Your task to perform on an android device: set an alarm Image 0: 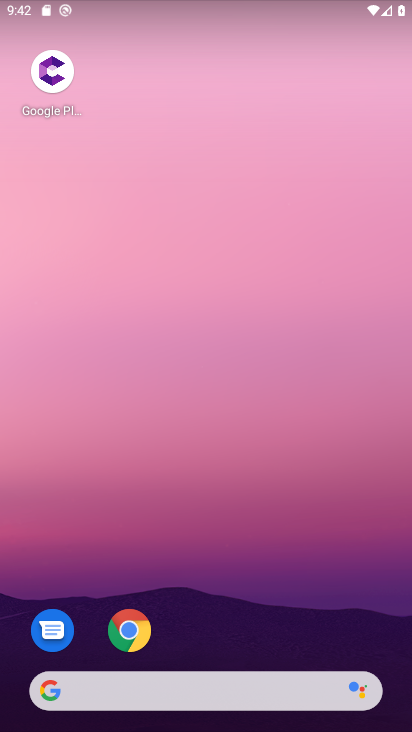
Step 0: drag from (195, 678) to (165, 120)
Your task to perform on an android device: set an alarm Image 1: 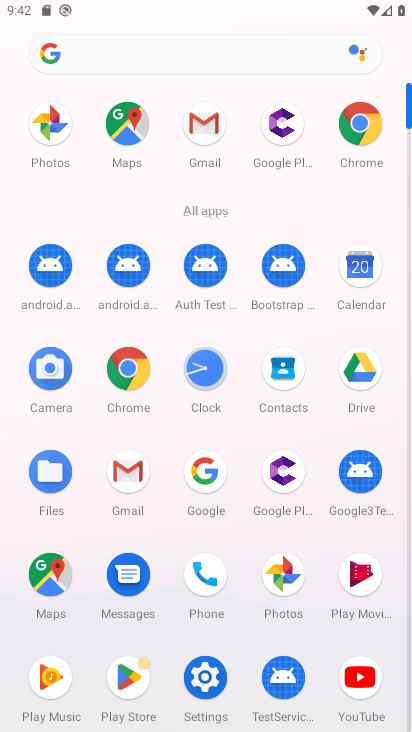
Step 1: click (214, 367)
Your task to perform on an android device: set an alarm Image 2: 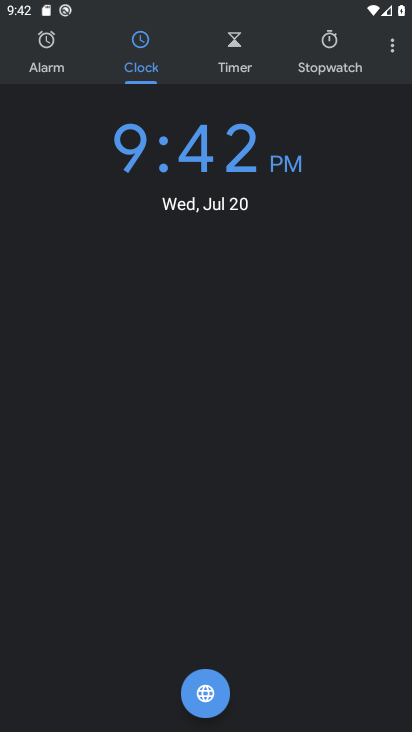
Step 2: click (50, 63)
Your task to perform on an android device: set an alarm Image 3: 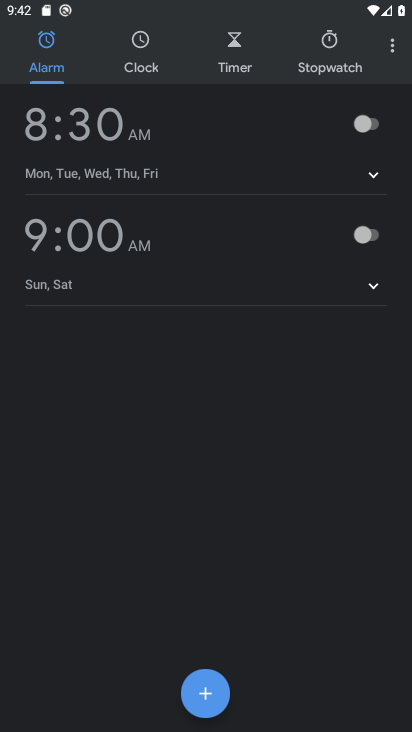
Step 3: click (208, 706)
Your task to perform on an android device: set an alarm Image 4: 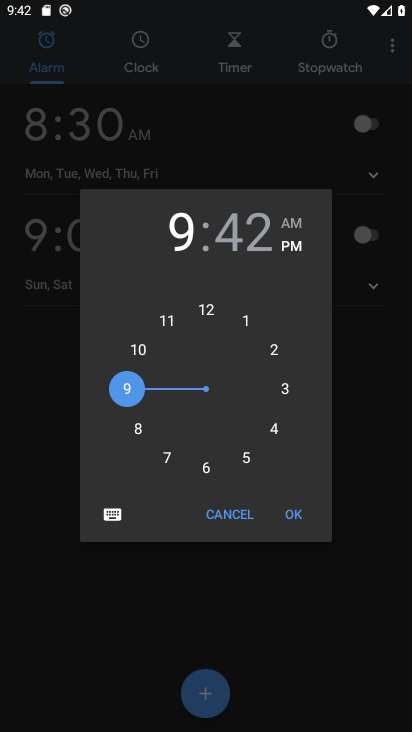
Step 4: click (138, 430)
Your task to perform on an android device: set an alarm Image 5: 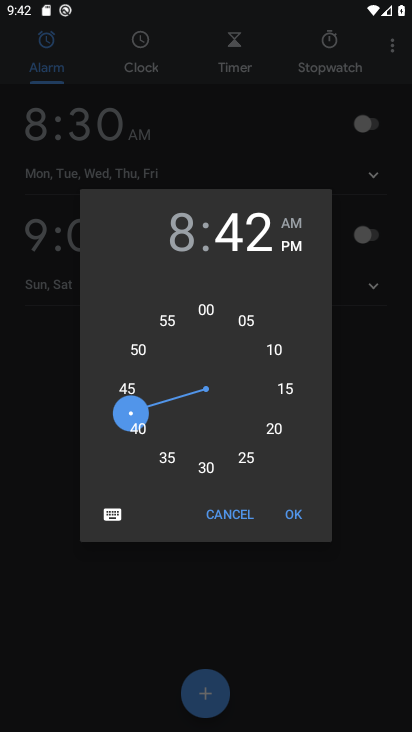
Step 5: click (295, 517)
Your task to perform on an android device: set an alarm Image 6: 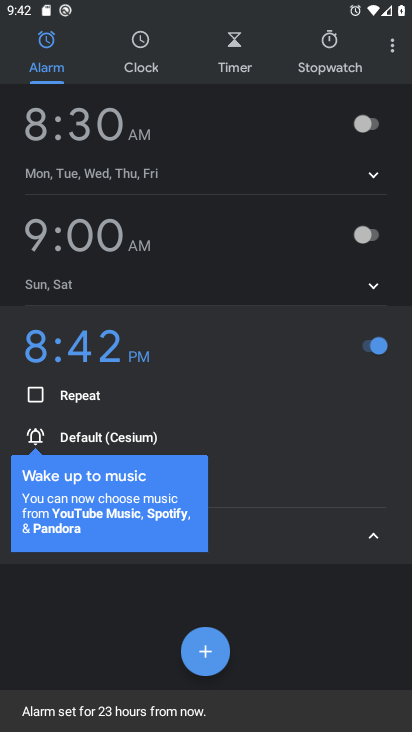
Step 6: task complete